Your task to perform on an android device: Add apple airpods to the cart on bestbuy.com Image 0: 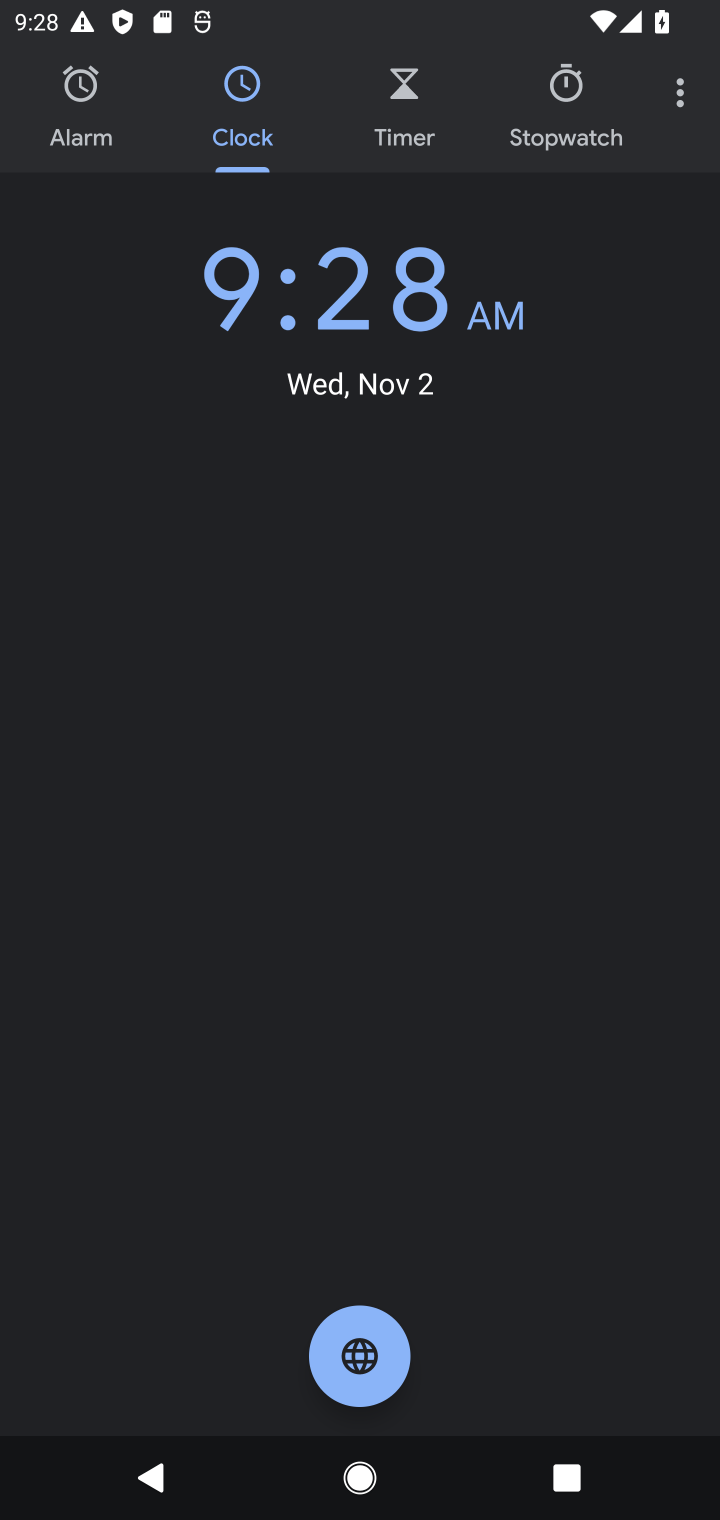
Step 0: press home button
Your task to perform on an android device: Add apple airpods to the cart on bestbuy.com Image 1: 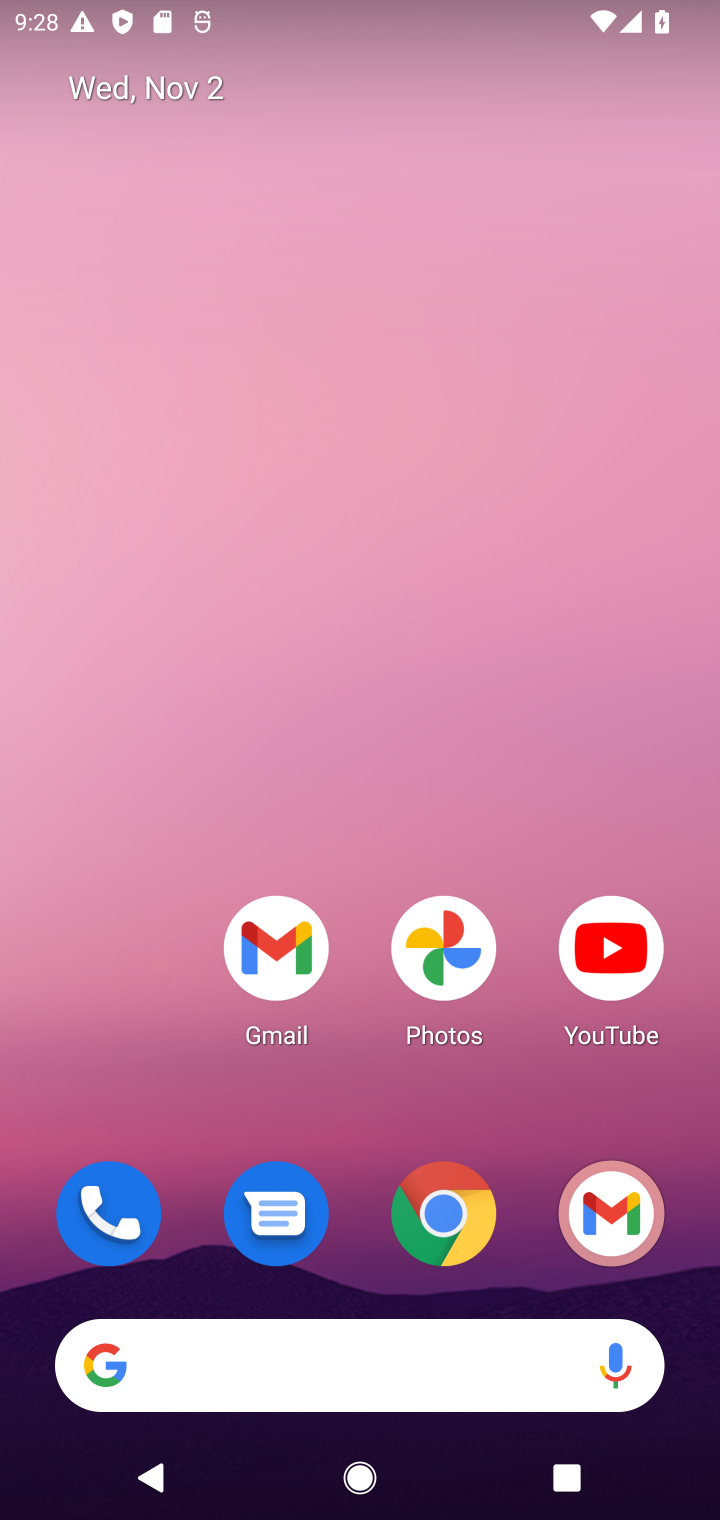
Step 1: click (447, 1232)
Your task to perform on an android device: Add apple airpods to the cart on bestbuy.com Image 2: 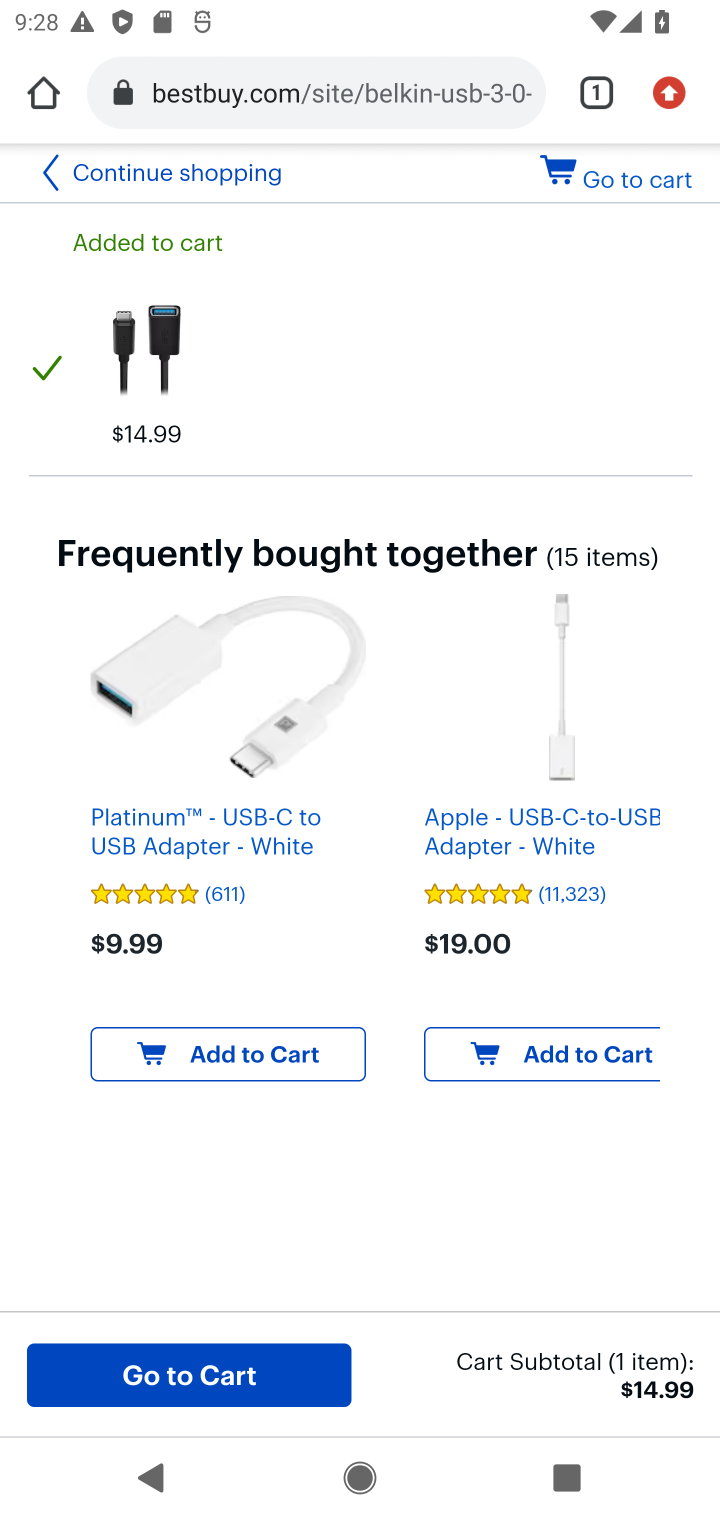
Step 2: click (186, 178)
Your task to perform on an android device: Add apple airpods to the cart on bestbuy.com Image 3: 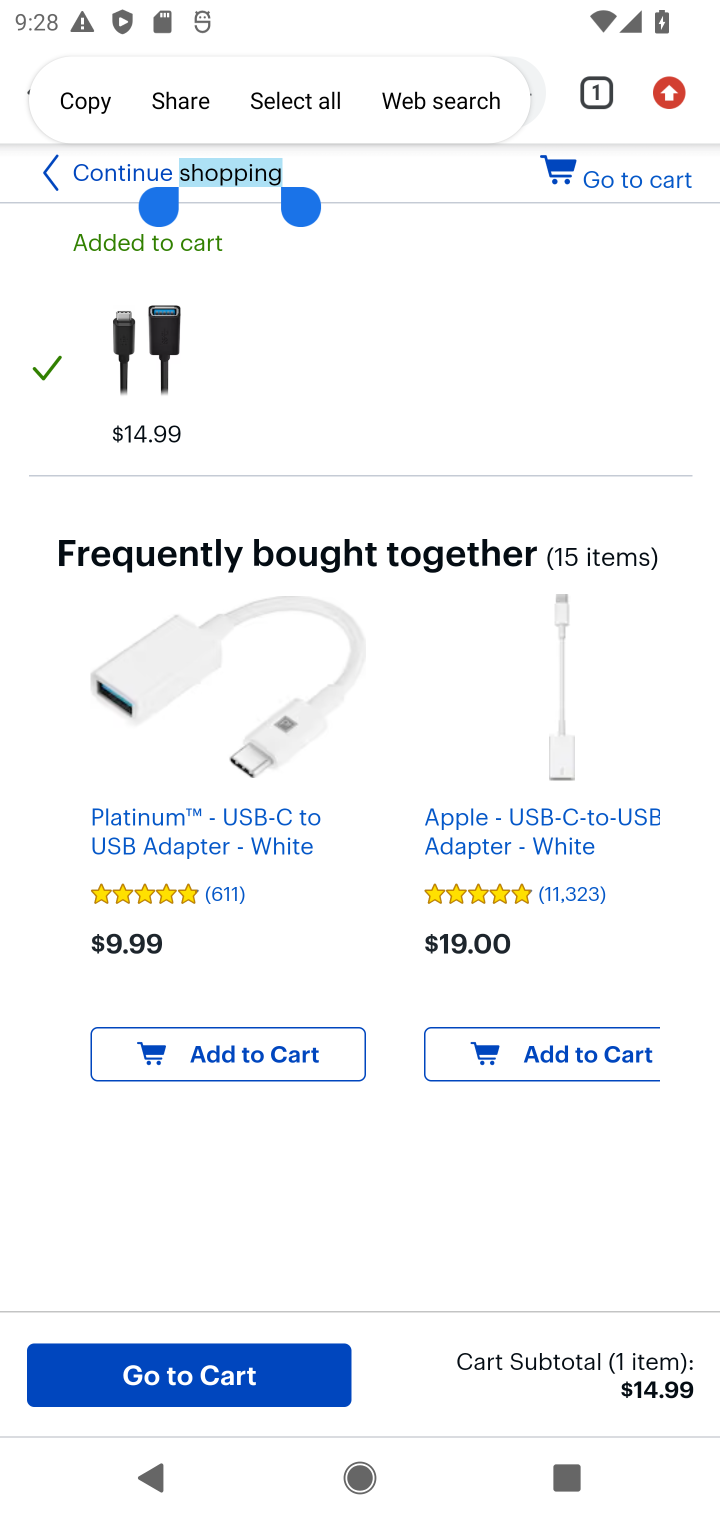
Step 3: click (37, 170)
Your task to perform on an android device: Add apple airpods to the cart on bestbuy.com Image 4: 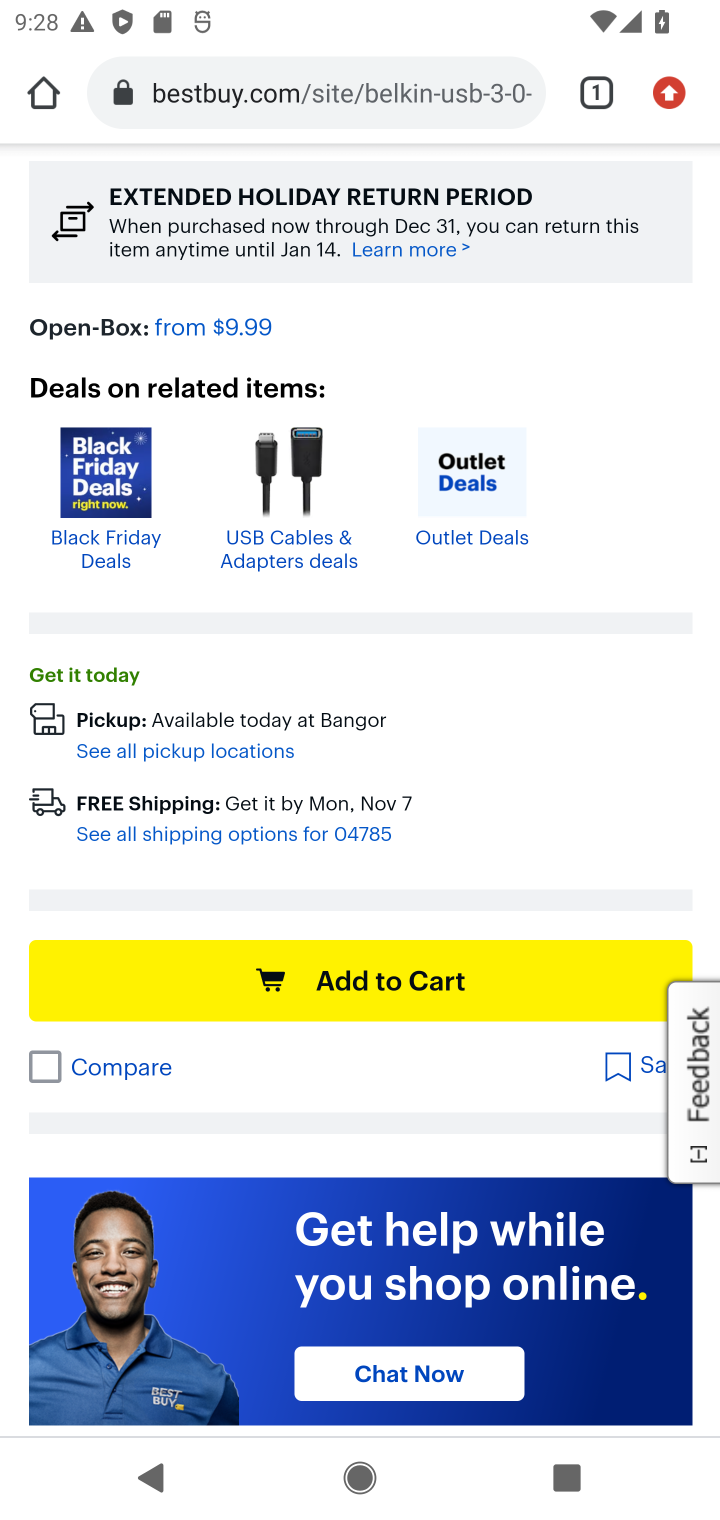
Step 4: drag from (320, 337) to (432, 1461)
Your task to perform on an android device: Add apple airpods to the cart on bestbuy.com Image 5: 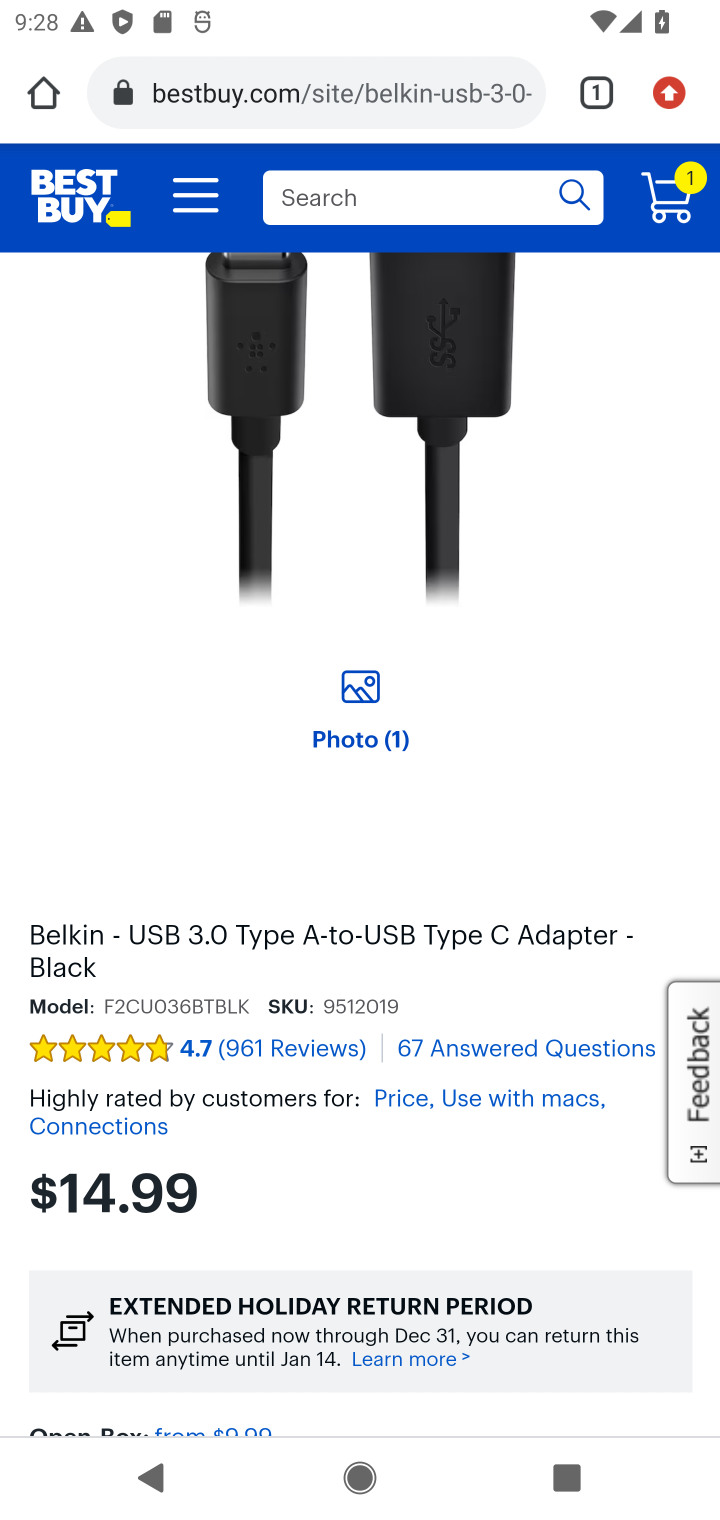
Step 5: click (428, 211)
Your task to perform on an android device: Add apple airpods to the cart on bestbuy.com Image 6: 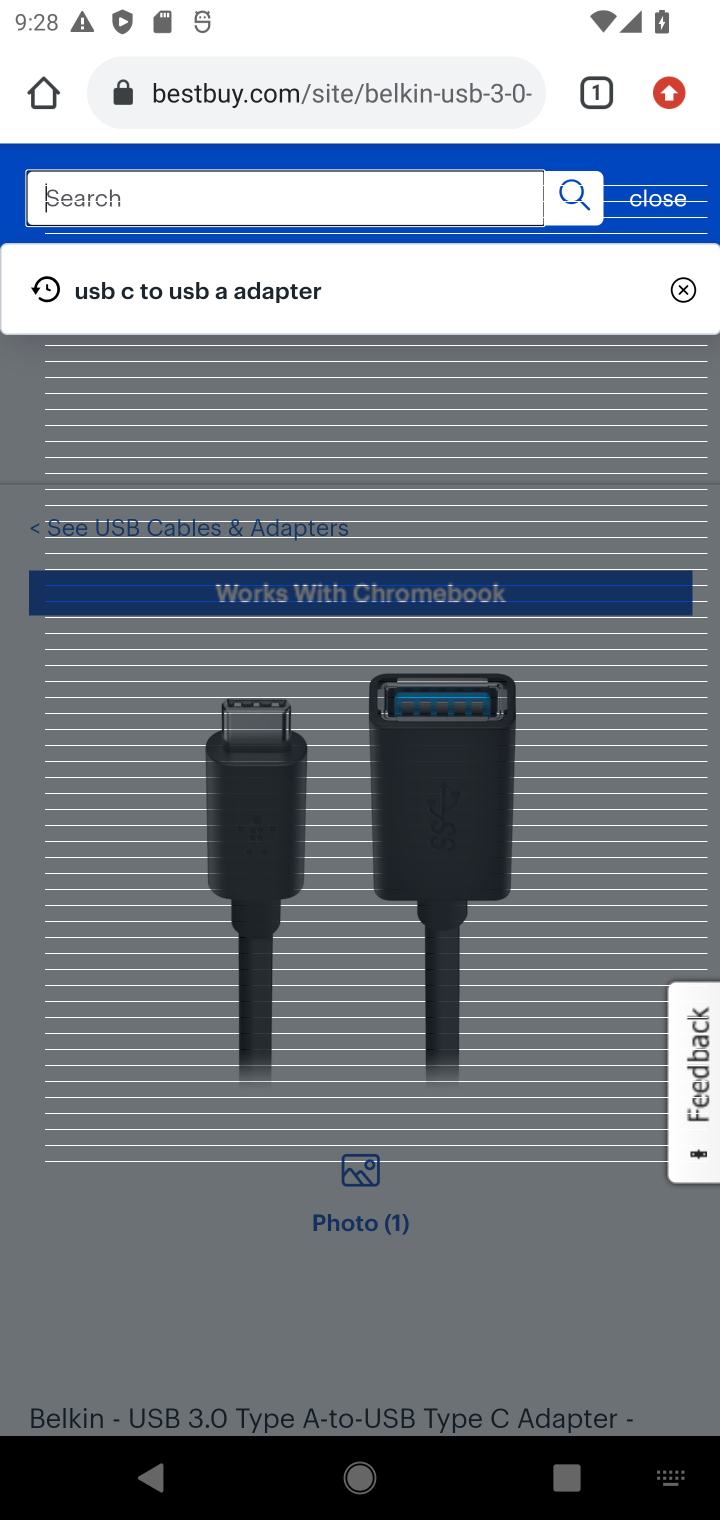
Step 6: type "apple airpods"
Your task to perform on an android device: Add apple airpods to the cart on bestbuy.com Image 7: 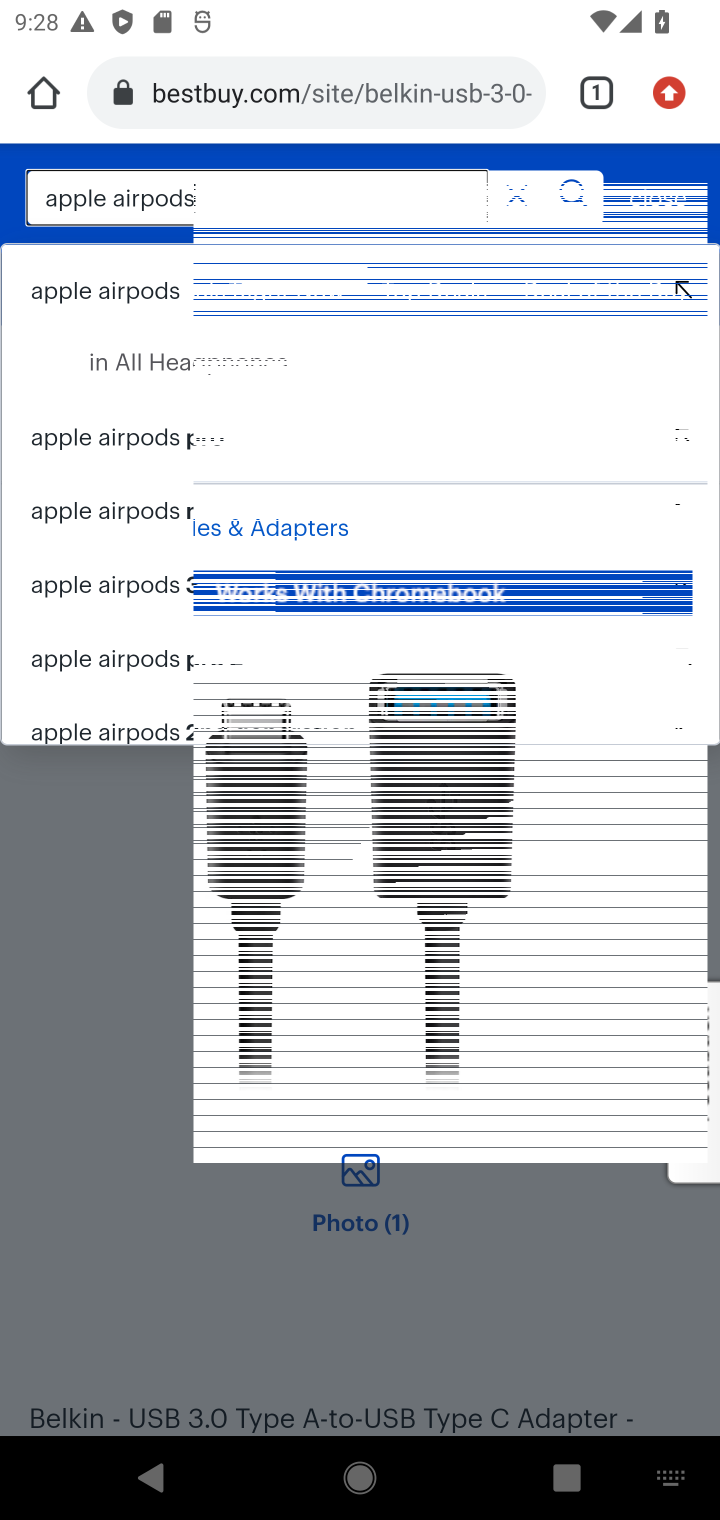
Step 7: click (132, 293)
Your task to perform on an android device: Add apple airpods to the cart on bestbuy.com Image 8: 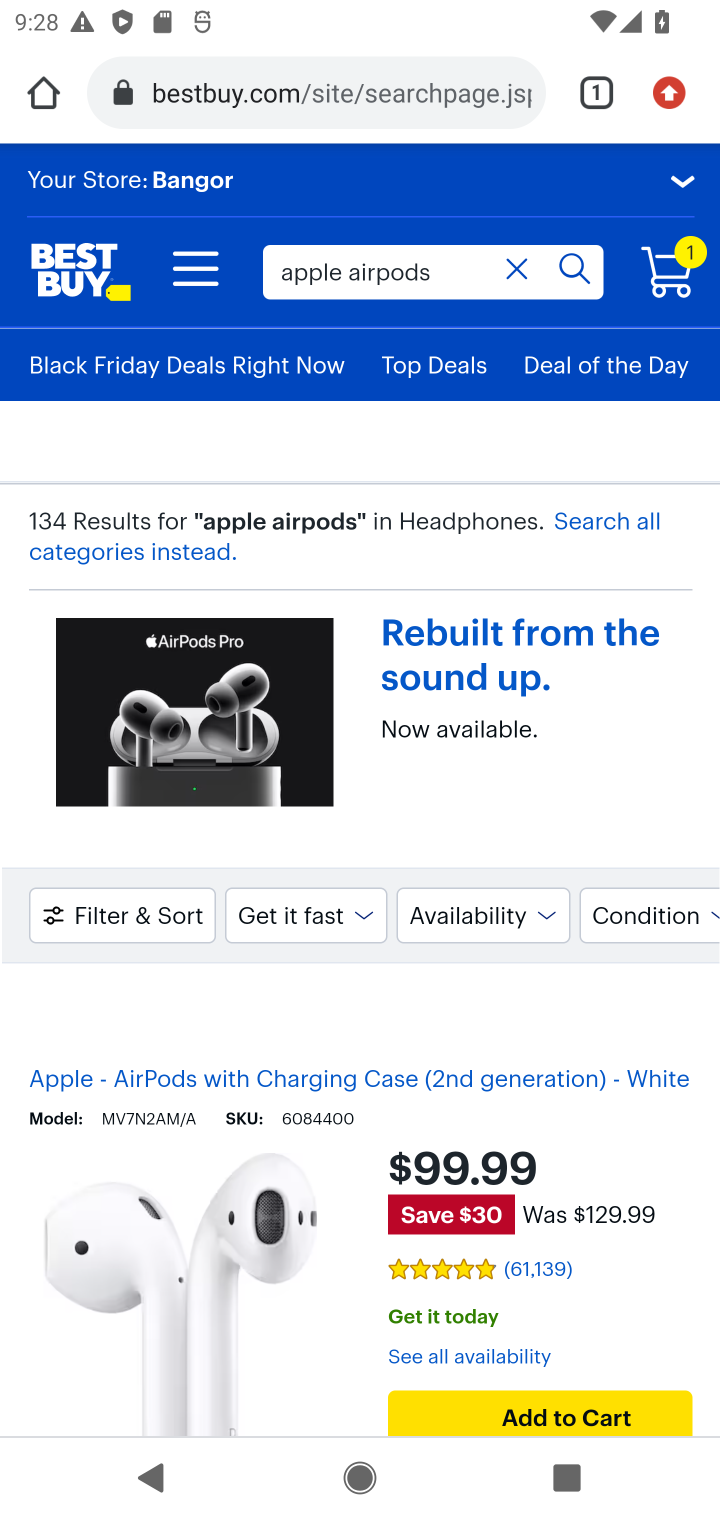
Step 8: click (192, 1216)
Your task to perform on an android device: Add apple airpods to the cart on bestbuy.com Image 9: 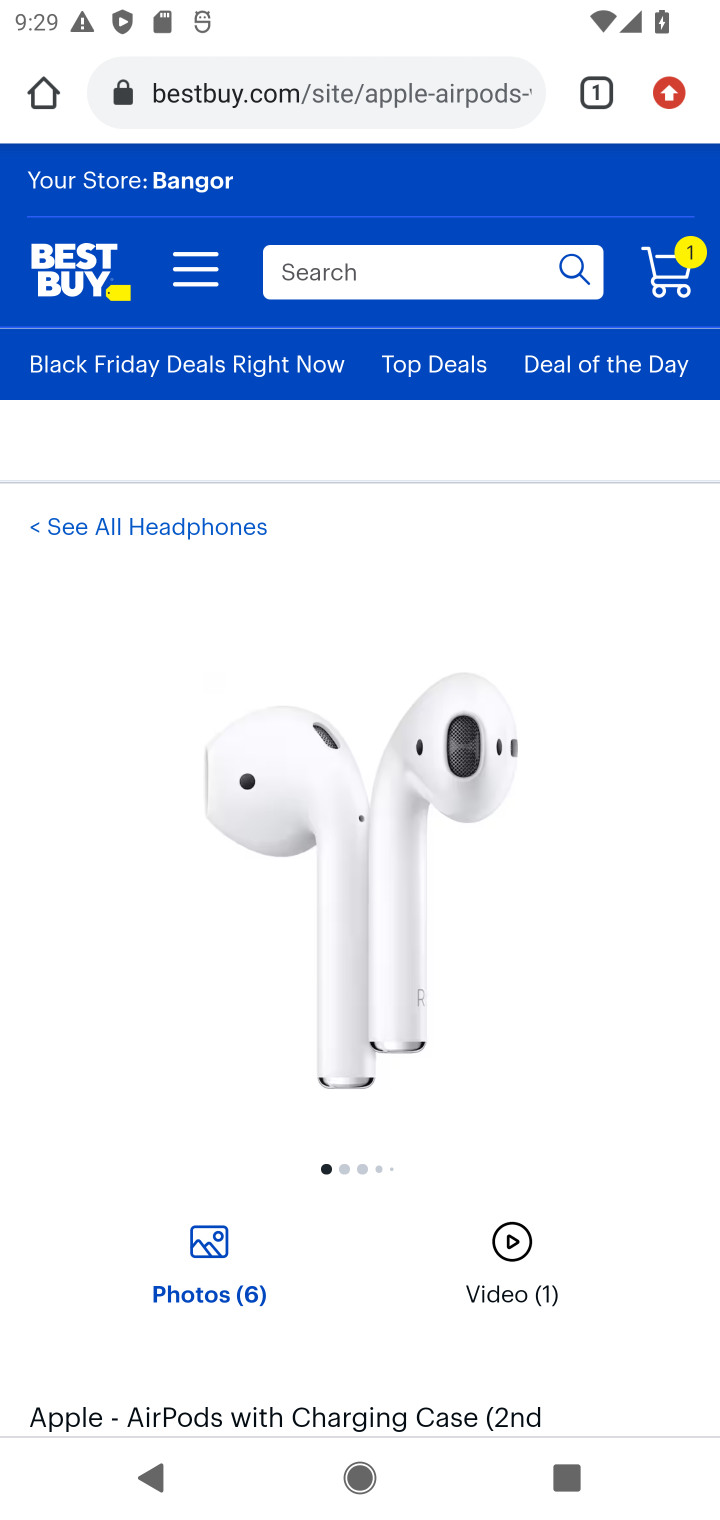
Step 9: drag from (339, 937) to (356, 308)
Your task to perform on an android device: Add apple airpods to the cart on bestbuy.com Image 10: 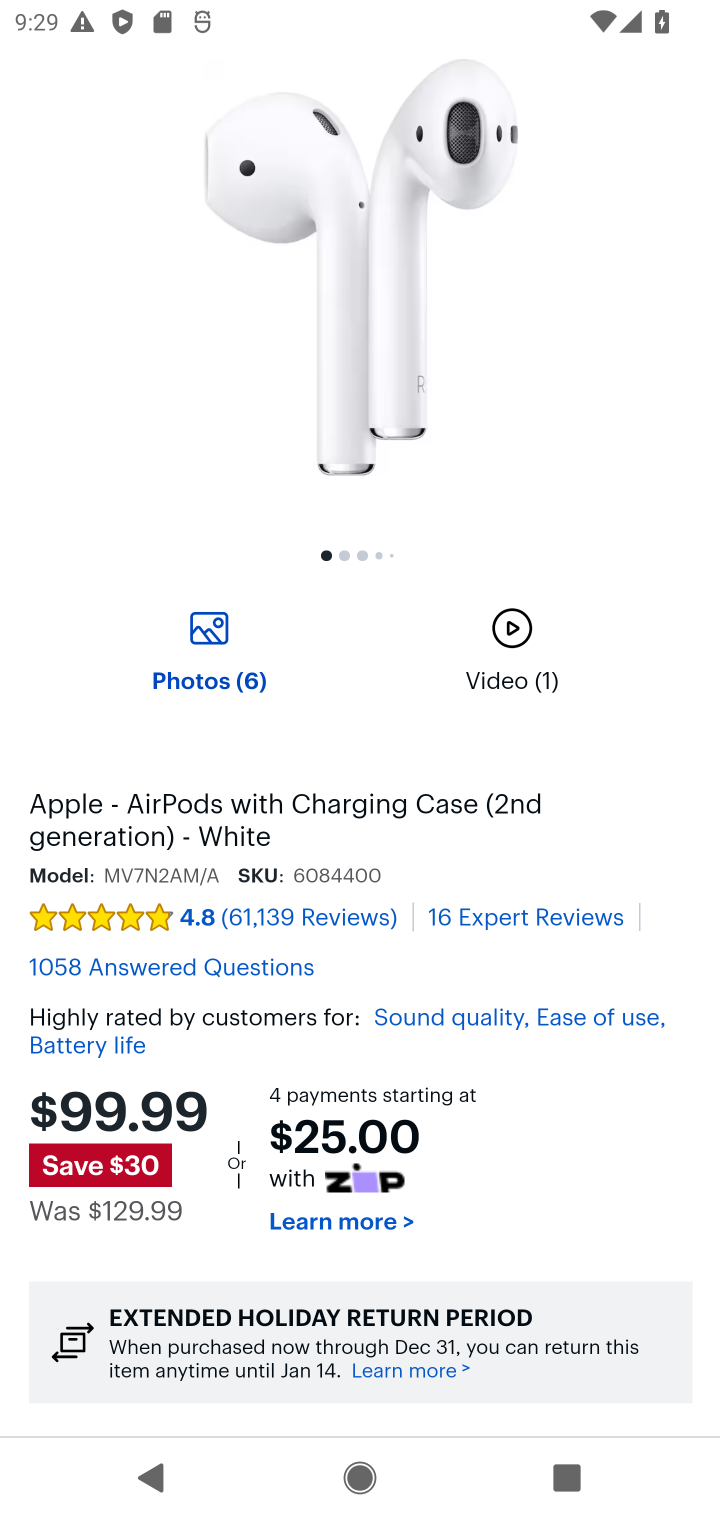
Step 10: drag from (498, 1175) to (460, 491)
Your task to perform on an android device: Add apple airpods to the cart on bestbuy.com Image 11: 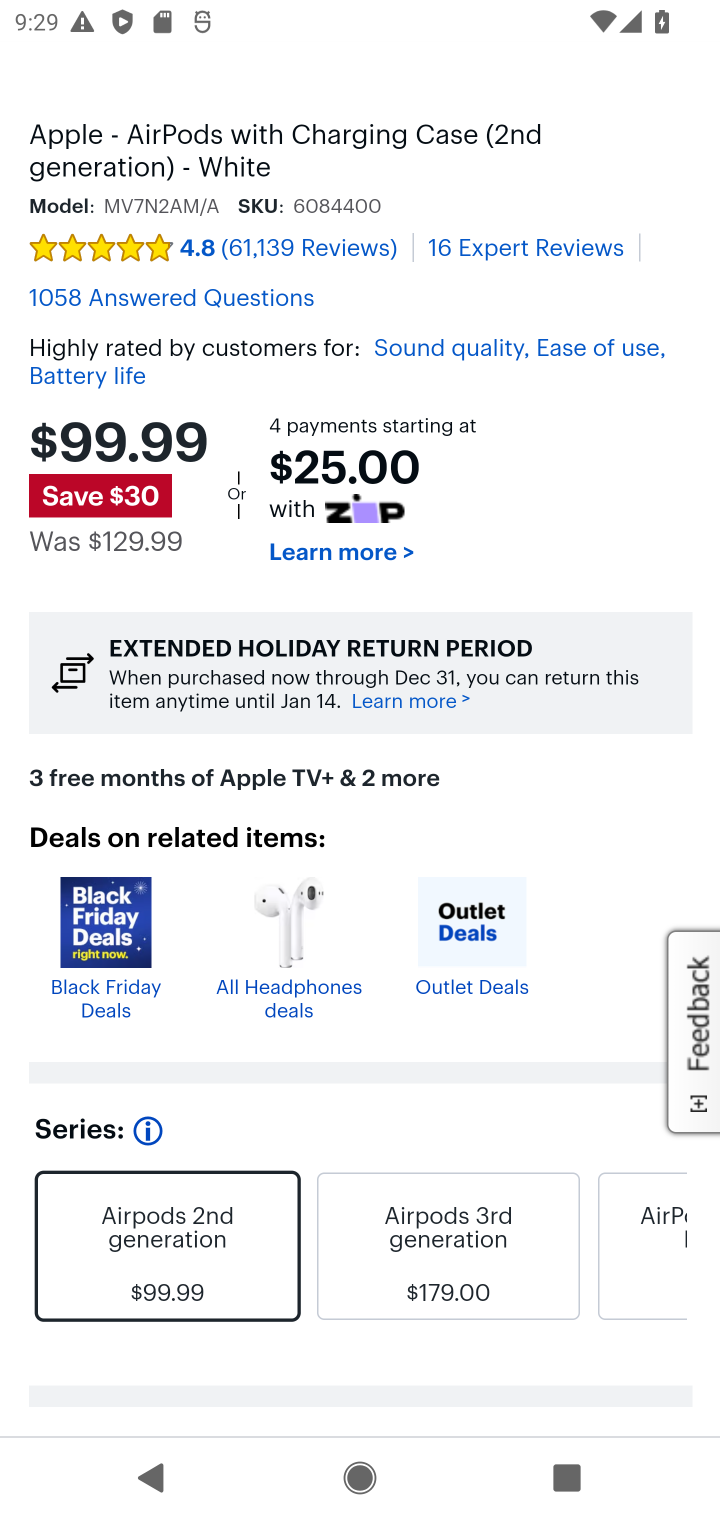
Step 11: drag from (380, 984) to (378, 533)
Your task to perform on an android device: Add apple airpods to the cart on bestbuy.com Image 12: 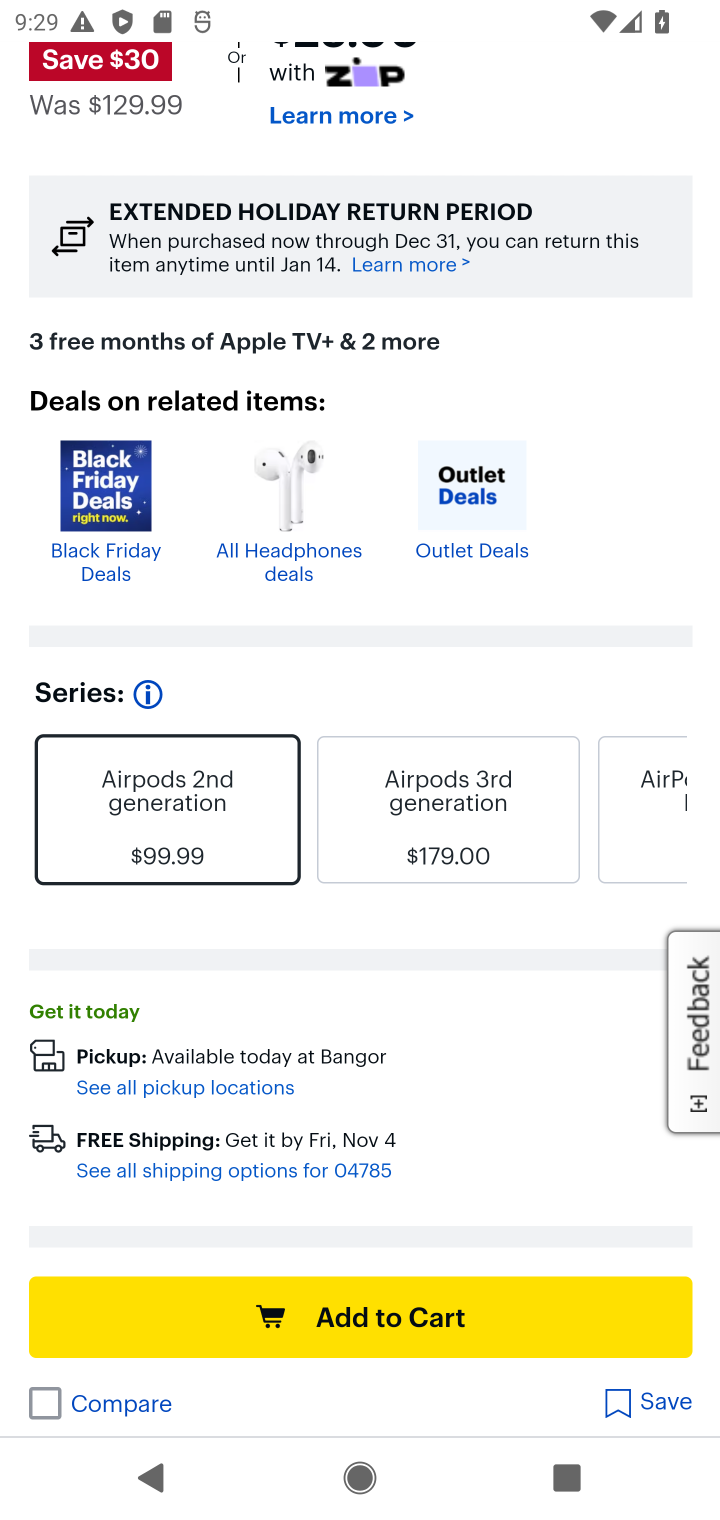
Step 12: click (377, 1327)
Your task to perform on an android device: Add apple airpods to the cart on bestbuy.com Image 13: 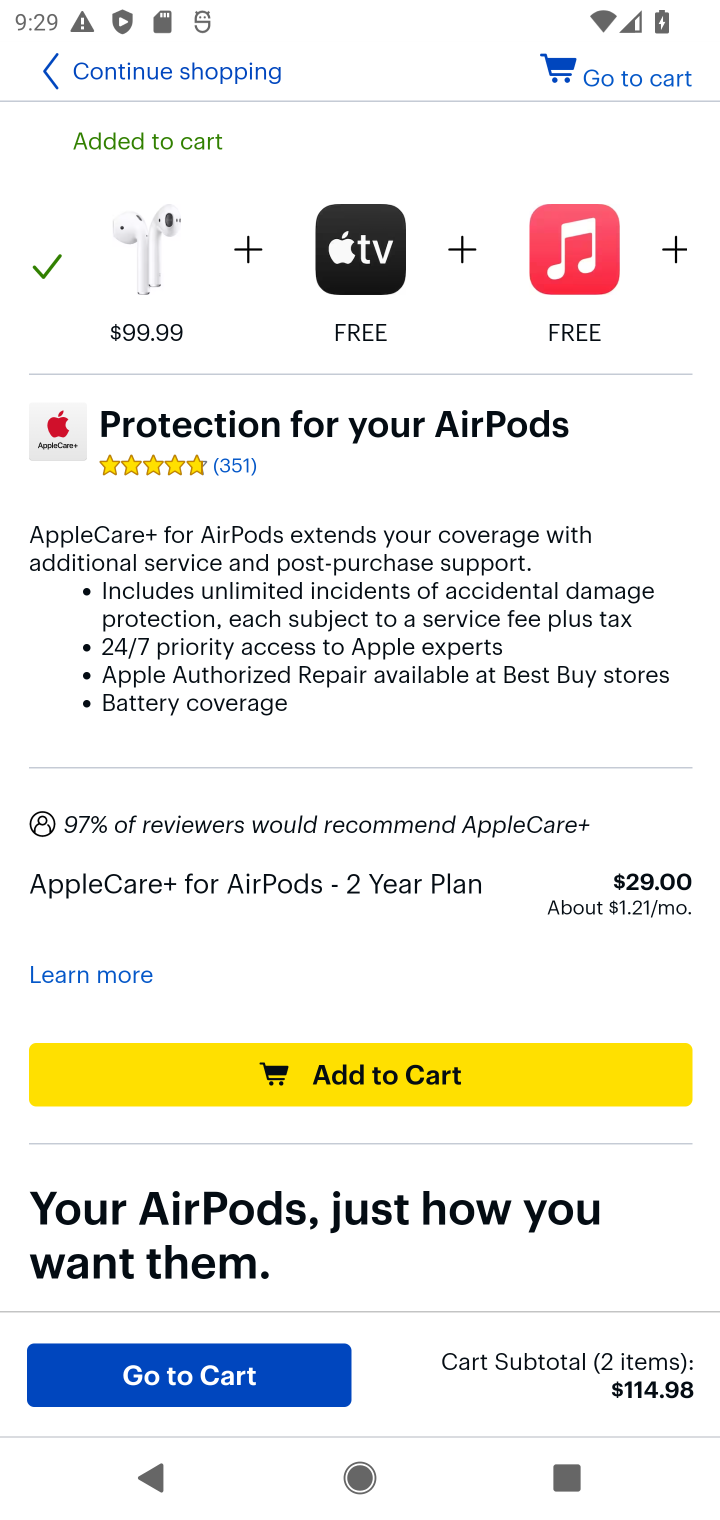
Step 13: task complete